Your task to perform on an android device: Open the calendar app, open the side menu, and click the "Day" option Image 0: 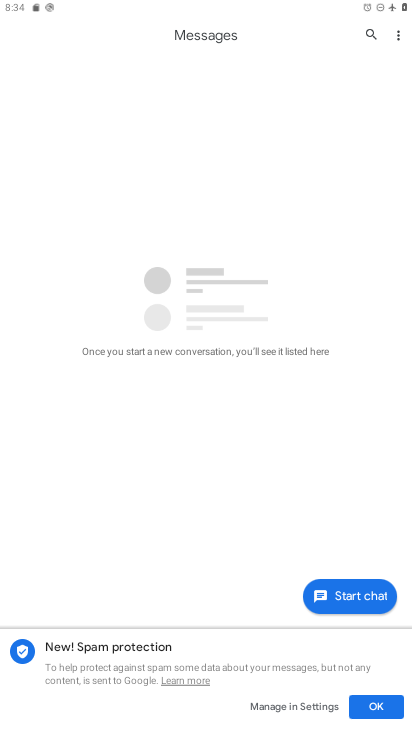
Step 0: press home button
Your task to perform on an android device: Open the calendar app, open the side menu, and click the "Day" option Image 1: 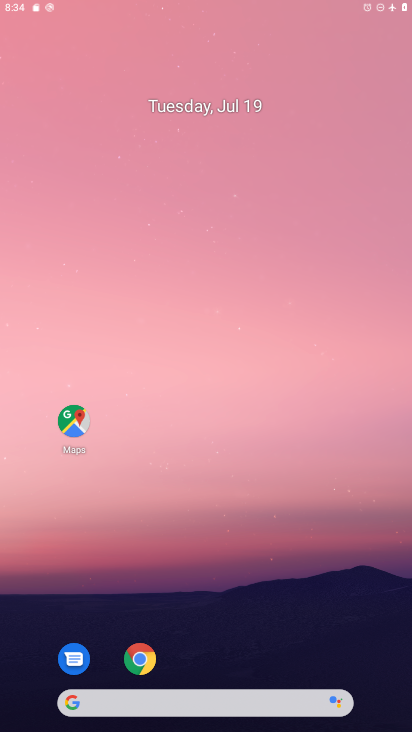
Step 1: drag from (248, 697) to (308, 309)
Your task to perform on an android device: Open the calendar app, open the side menu, and click the "Day" option Image 2: 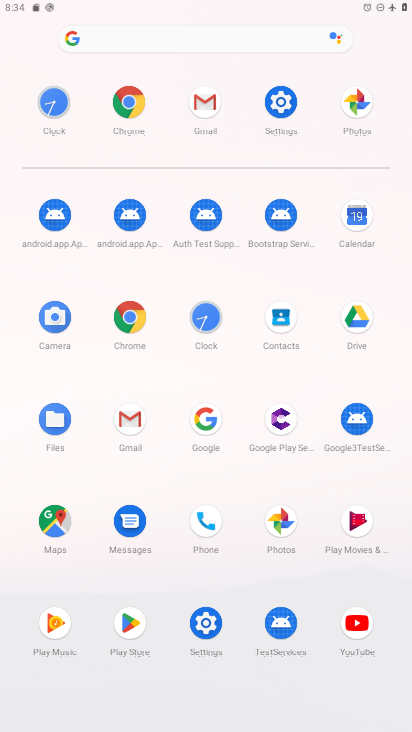
Step 2: click (366, 206)
Your task to perform on an android device: Open the calendar app, open the side menu, and click the "Day" option Image 3: 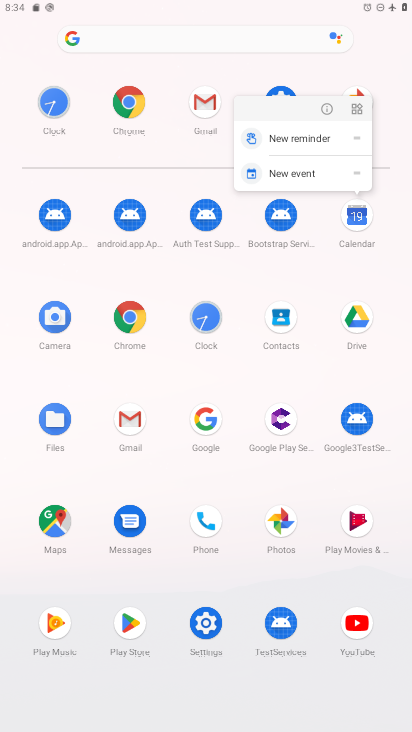
Step 3: click (360, 208)
Your task to perform on an android device: Open the calendar app, open the side menu, and click the "Day" option Image 4: 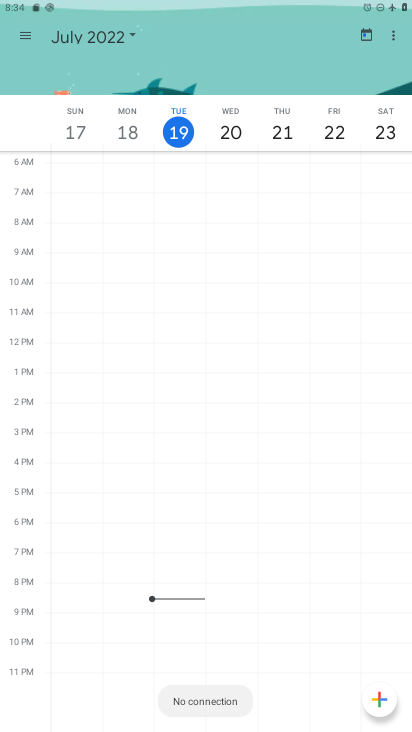
Step 4: click (17, 30)
Your task to perform on an android device: Open the calendar app, open the side menu, and click the "Day" option Image 5: 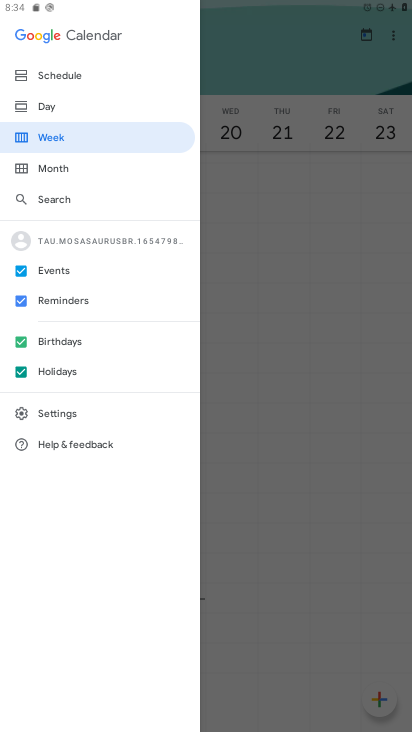
Step 5: click (60, 103)
Your task to perform on an android device: Open the calendar app, open the side menu, and click the "Day" option Image 6: 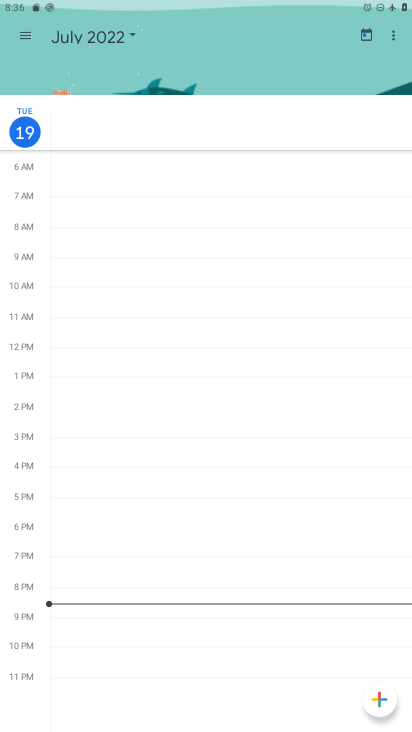
Step 6: task complete